Your task to perform on an android device: toggle notifications settings in the gmail app Image 0: 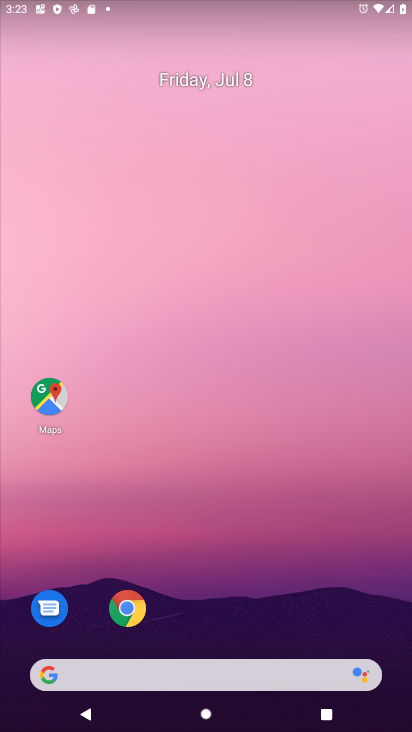
Step 0: drag from (242, 652) to (281, 30)
Your task to perform on an android device: toggle notifications settings in the gmail app Image 1: 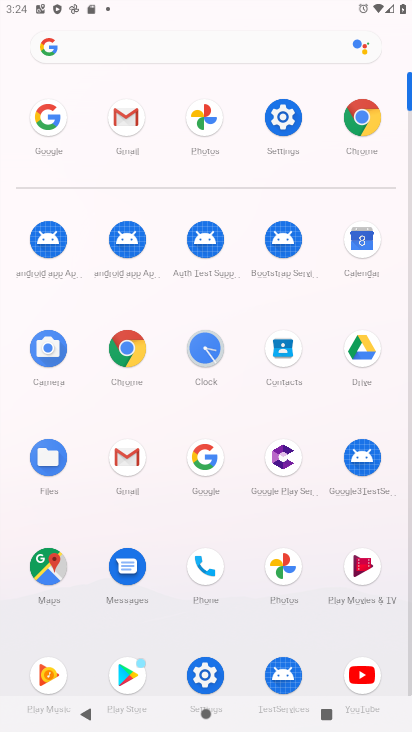
Step 1: click (126, 460)
Your task to perform on an android device: toggle notifications settings in the gmail app Image 2: 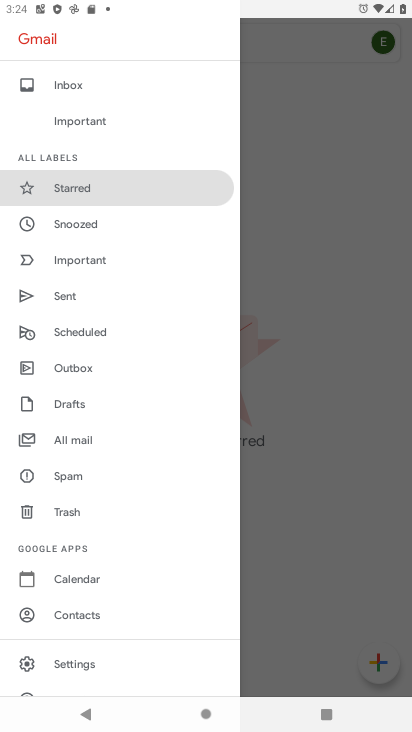
Step 2: drag from (88, 631) to (109, 416)
Your task to perform on an android device: toggle notifications settings in the gmail app Image 3: 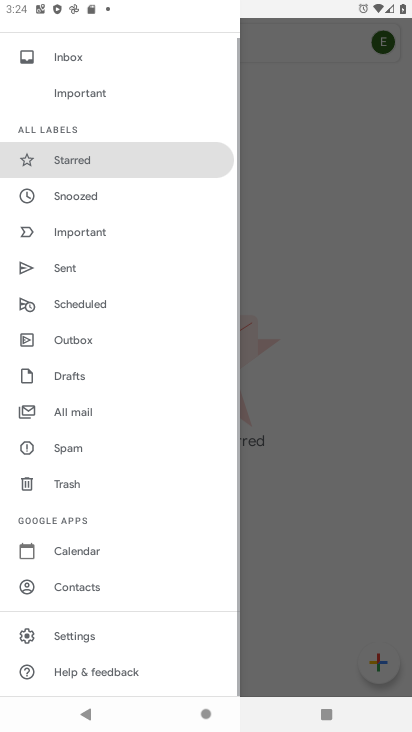
Step 3: click (102, 630)
Your task to perform on an android device: toggle notifications settings in the gmail app Image 4: 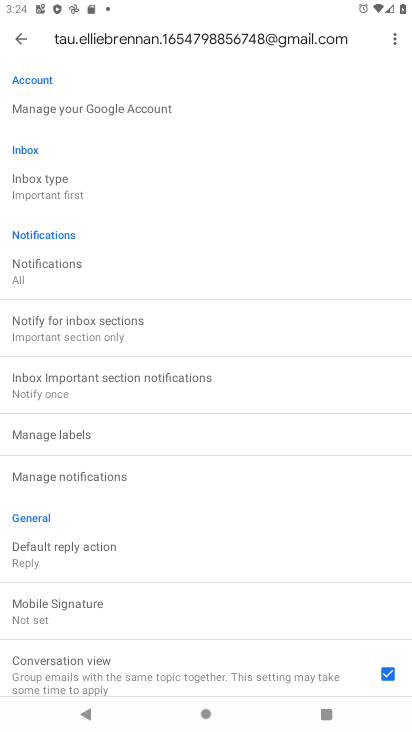
Step 4: click (120, 477)
Your task to perform on an android device: toggle notifications settings in the gmail app Image 5: 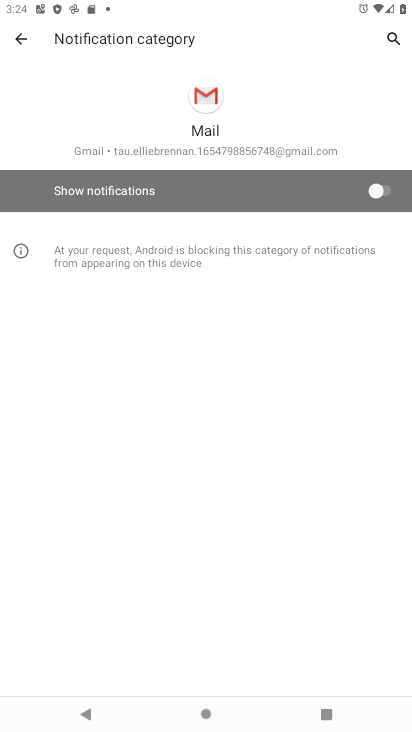
Step 5: click (387, 196)
Your task to perform on an android device: toggle notifications settings in the gmail app Image 6: 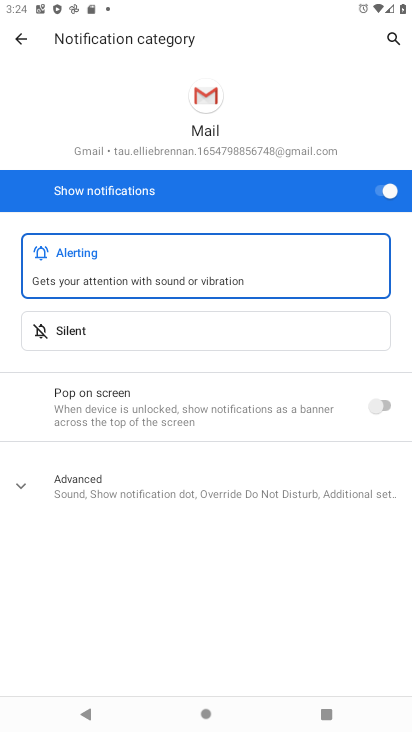
Step 6: task complete